Your task to perform on an android device: Go to eBay Image 0: 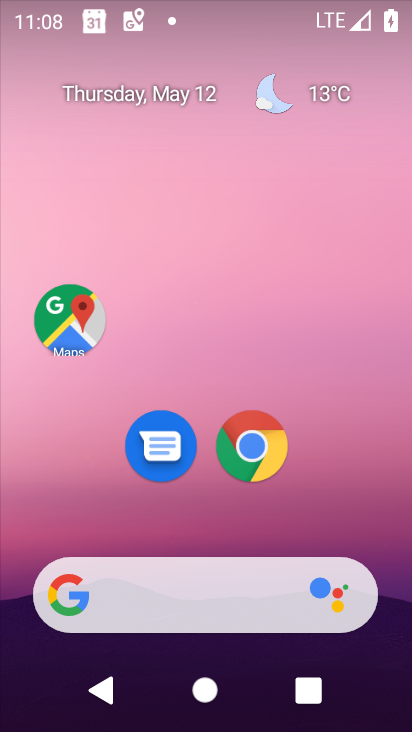
Step 0: drag from (173, 567) to (199, 7)
Your task to perform on an android device: Go to eBay Image 1: 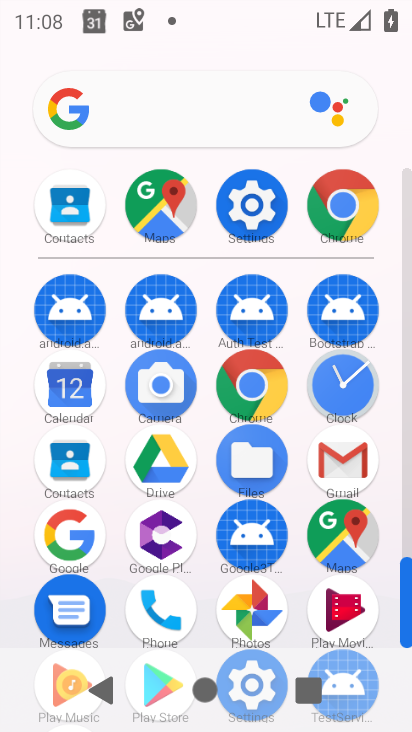
Step 1: click (241, 391)
Your task to perform on an android device: Go to eBay Image 2: 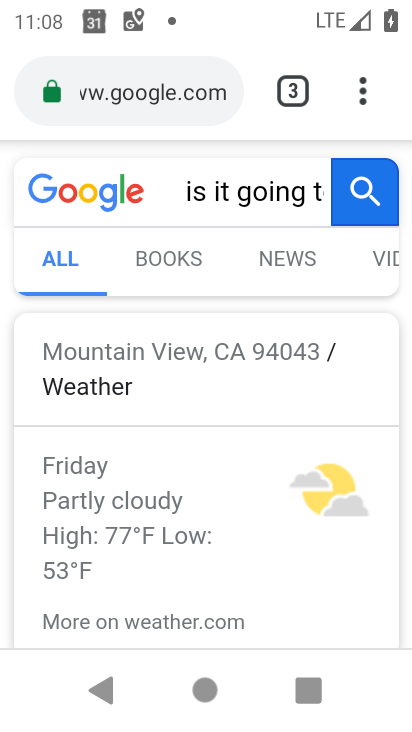
Step 2: click (204, 90)
Your task to perform on an android device: Go to eBay Image 3: 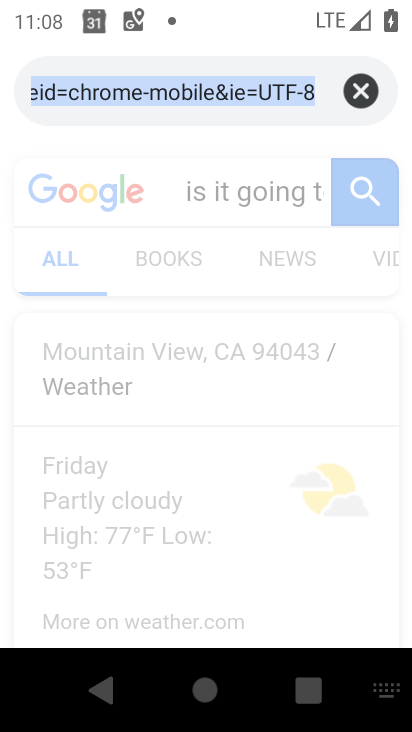
Step 3: click (374, 93)
Your task to perform on an android device: Go to eBay Image 4: 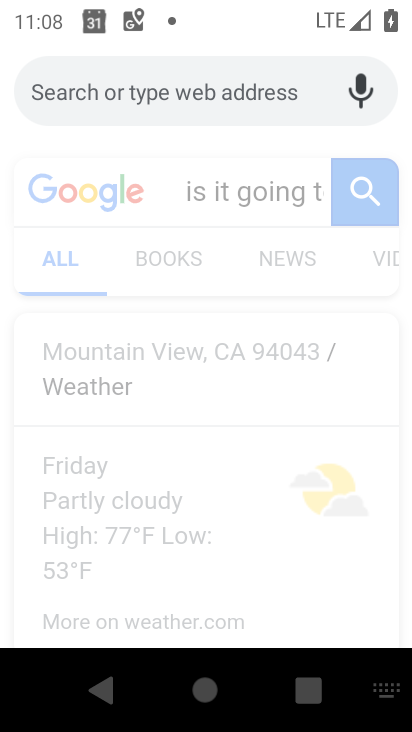
Step 4: type "ebay"
Your task to perform on an android device: Go to eBay Image 5: 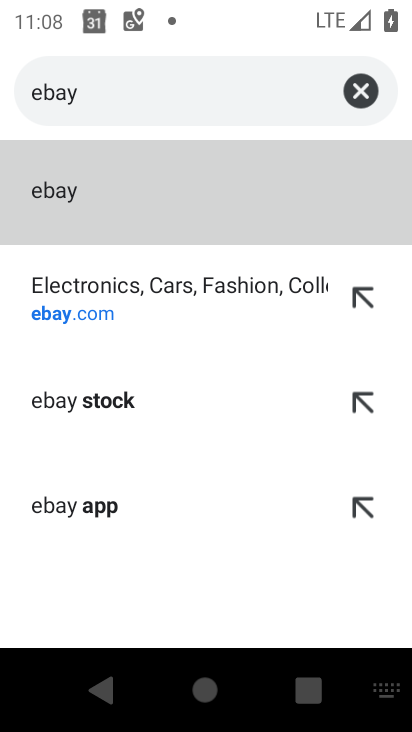
Step 5: click (162, 307)
Your task to perform on an android device: Go to eBay Image 6: 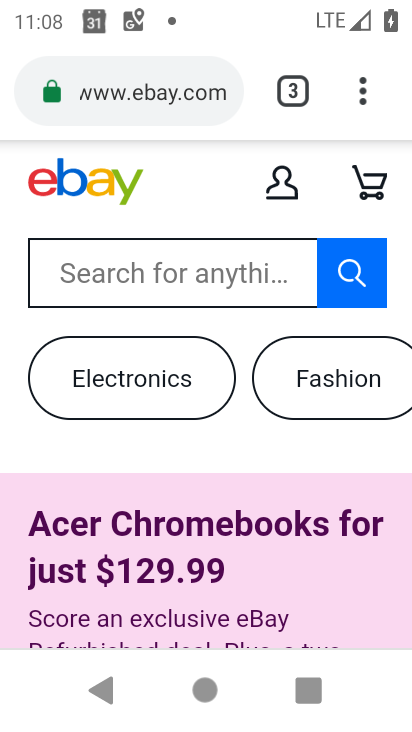
Step 6: task complete